Your task to perform on an android device: Go to notification settings Image 0: 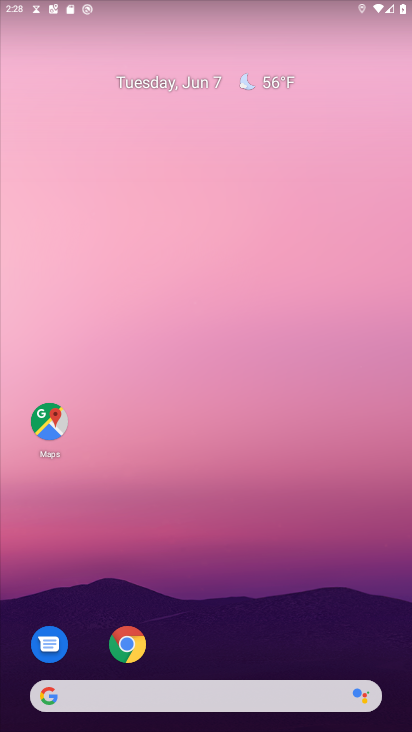
Step 0: press home button
Your task to perform on an android device: Go to notification settings Image 1: 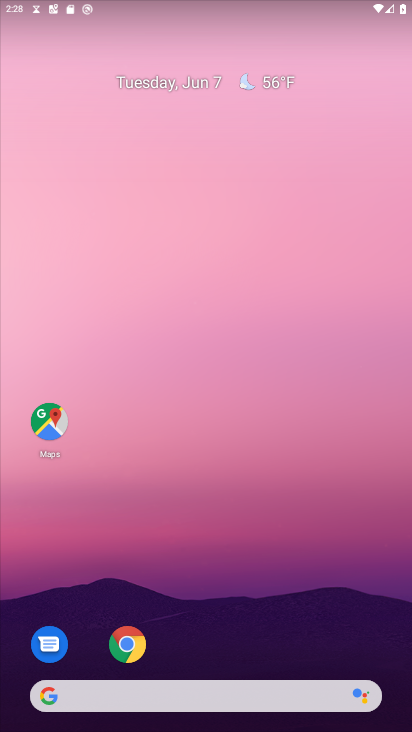
Step 1: click (249, 203)
Your task to perform on an android device: Go to notification settings Image 2: 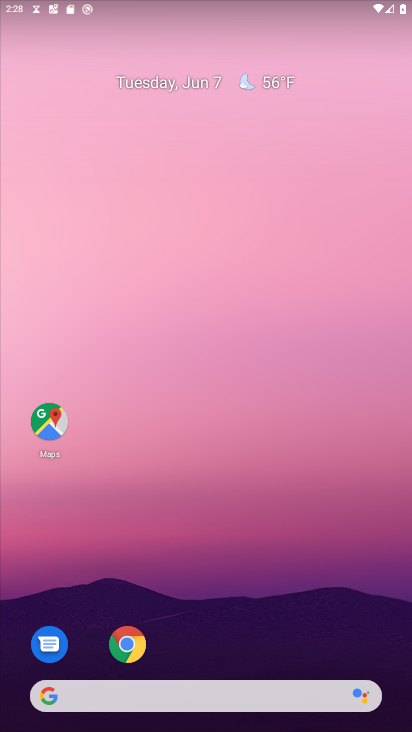
Step 2: drag from (226, 618) to (222, 112)
Your task to perform on an android device: Go to notification settings Image 3: 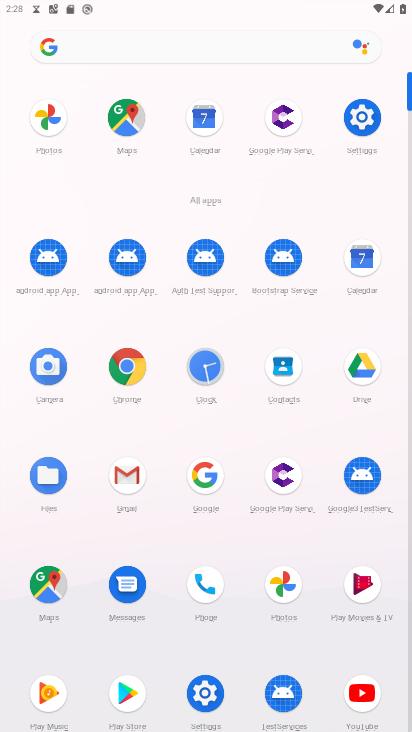
Step 3: click (357, 110)
Your task to perform on an android device: Go to notification settings Image 4: 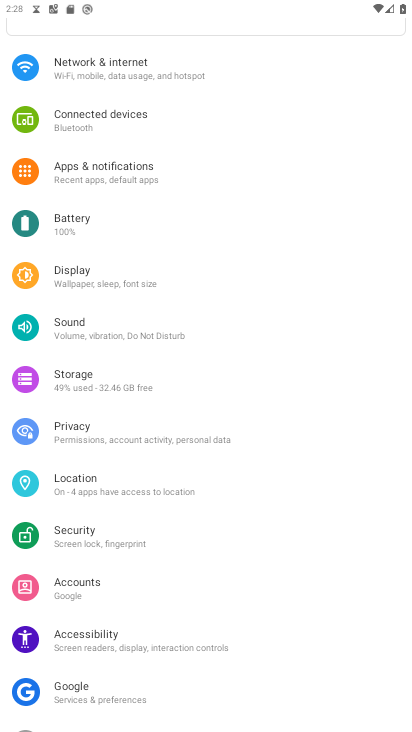
Step 4: click (148, 167)
Your task to perform on an android device: Go to notification settings Image 5: 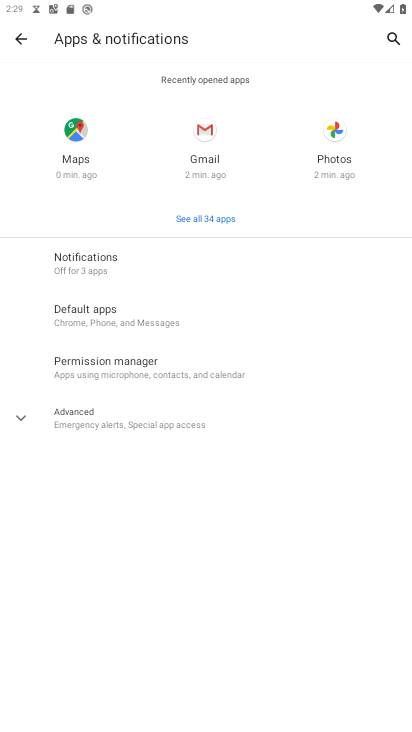
Step 5: click (127, 261)
Your task to perform on an android device: Go to notification settings Image 6: 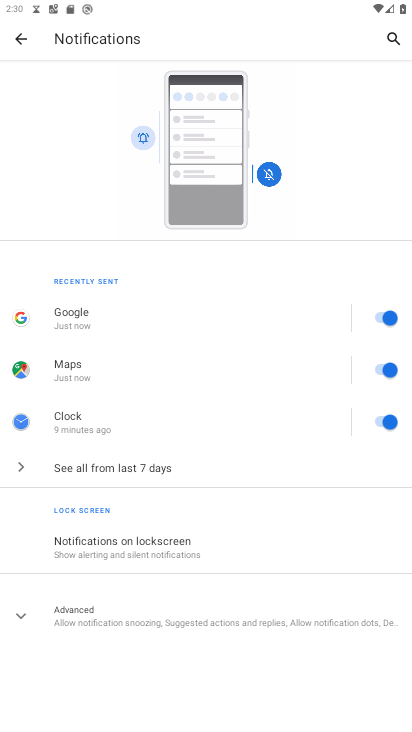
Step 6: drag from (196, 573) to (210, 138)
Your task to perform on an android device: Go to notification settings Image 7: 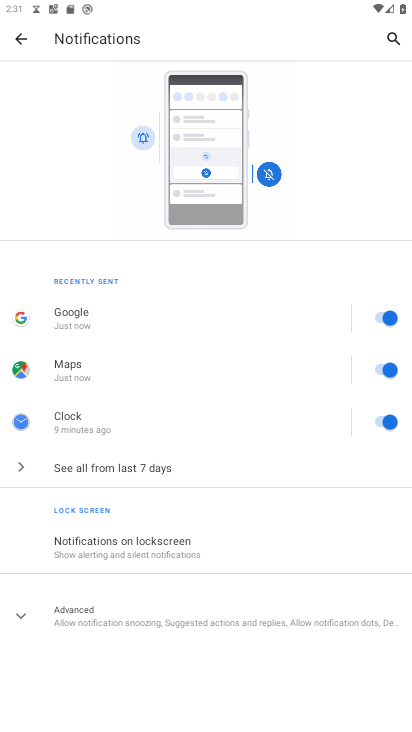
Step 7: click (16, 609)
Your task to perform on an android device: Go to notification settings Image 8: 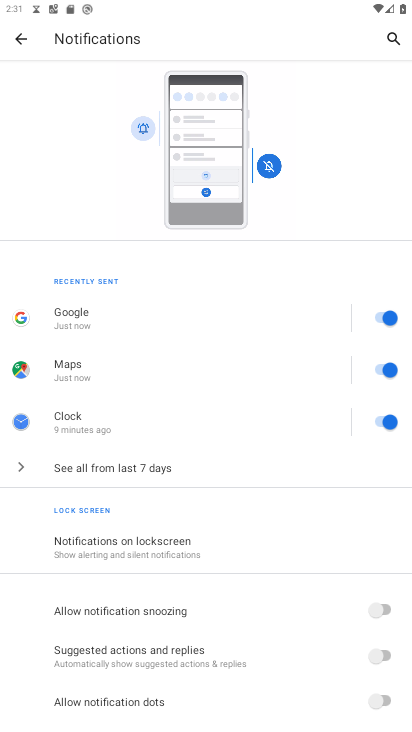
Step 8: task complete